Your task to perform on an android device: turn off wifi Image 0: 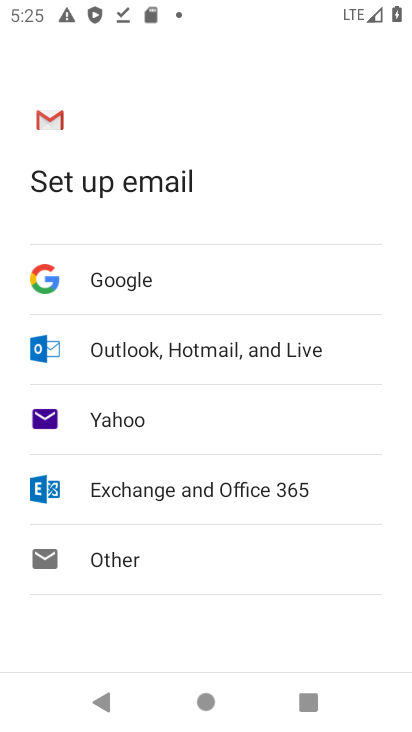
Step 0: click (277, 648)
Your task to perform on an android device: turn off wifi Image 1: 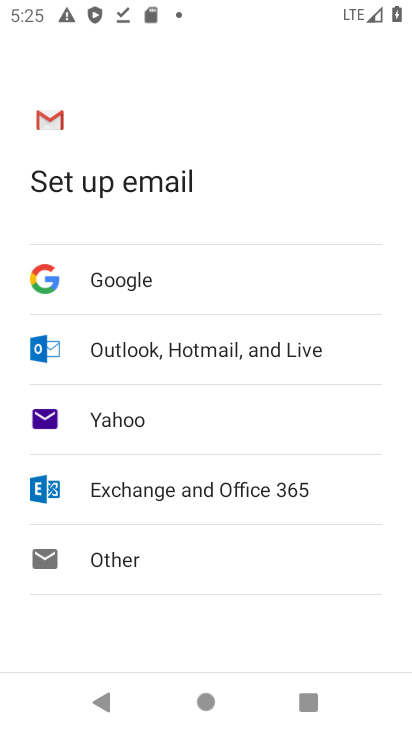
Step 1: press home button
Your task to perform on an android device: turn off wifi Image 2: 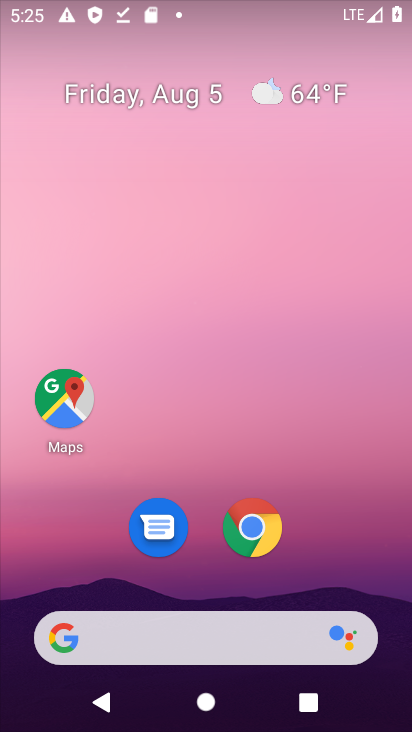
Step 2: drag from (229, 566) to (320, 101)
Your task to perform on an android device: turn off wifi Image 3: 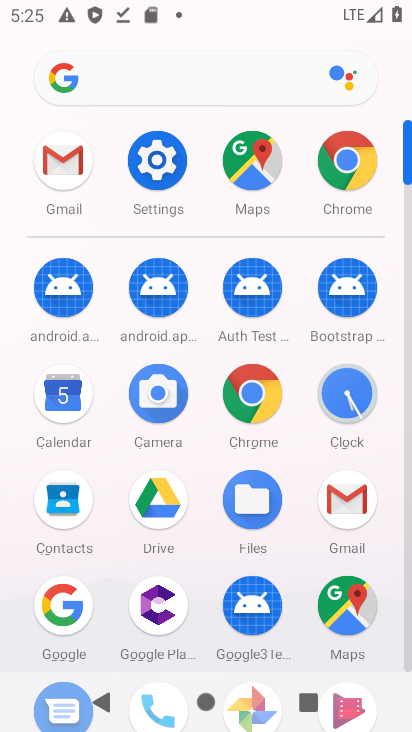
Step 3: click (160, 172)
Your task to perform on an android device: turn off wifi Image 4: 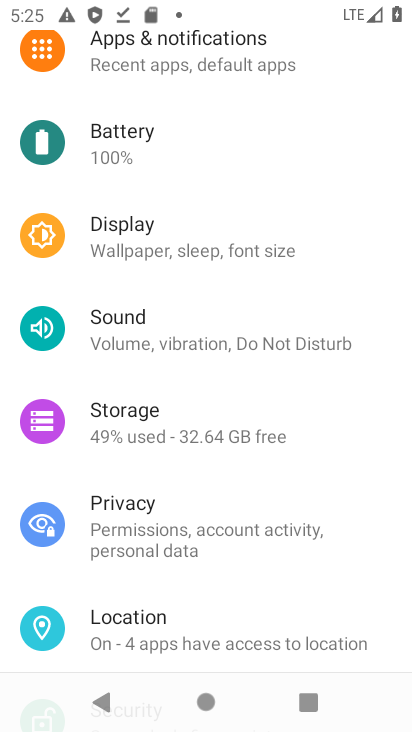
Step 4: drag from (179, 193) to (299, 657)
Your task to perform on an android device: turn off wifi Image 5: 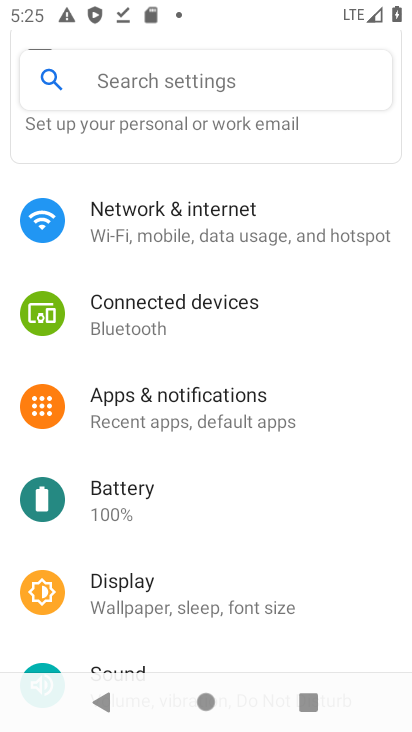
Step 5: click (163, 230)
Your task to perform on an android device: turn off wifi Image 6: 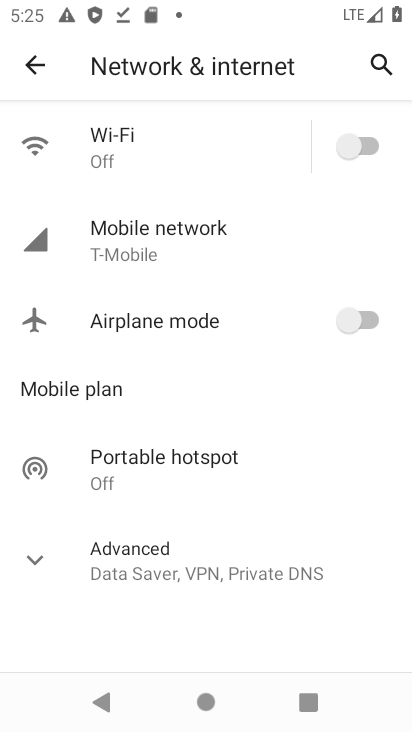
Step 6: click (141, 160)
Your task to perform on an android device: turn off wifi Image 7: 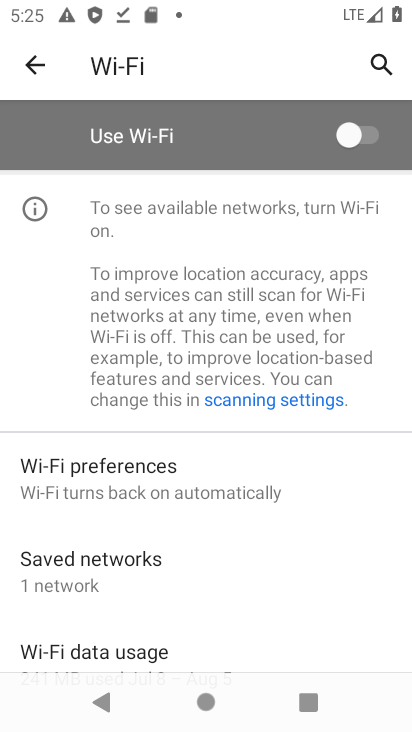
Step 7: task complete